Your task to perform on an android device: see creations saved in the google photos Image 0: 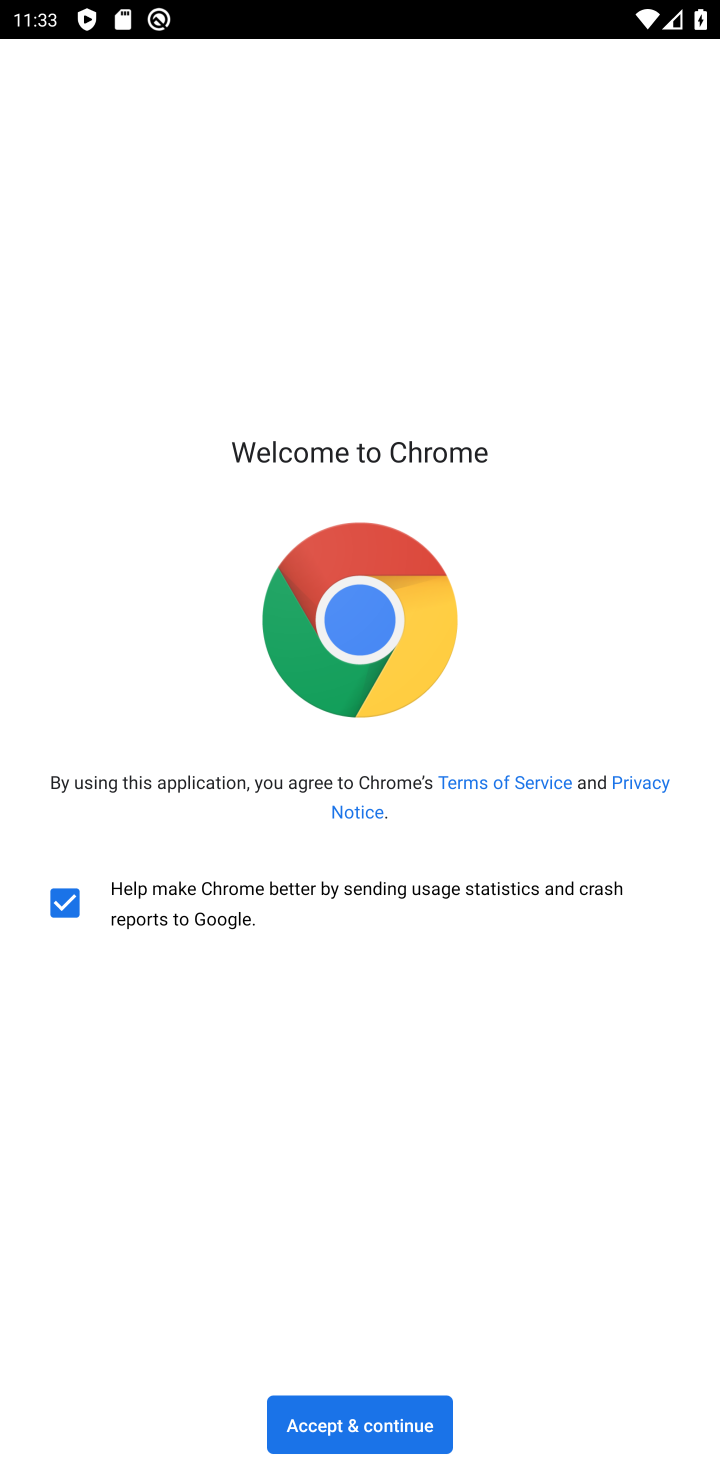
Step 0: click (363, 1424)
Your task to perform on an android device: see creations saved in the google photos Image 1: 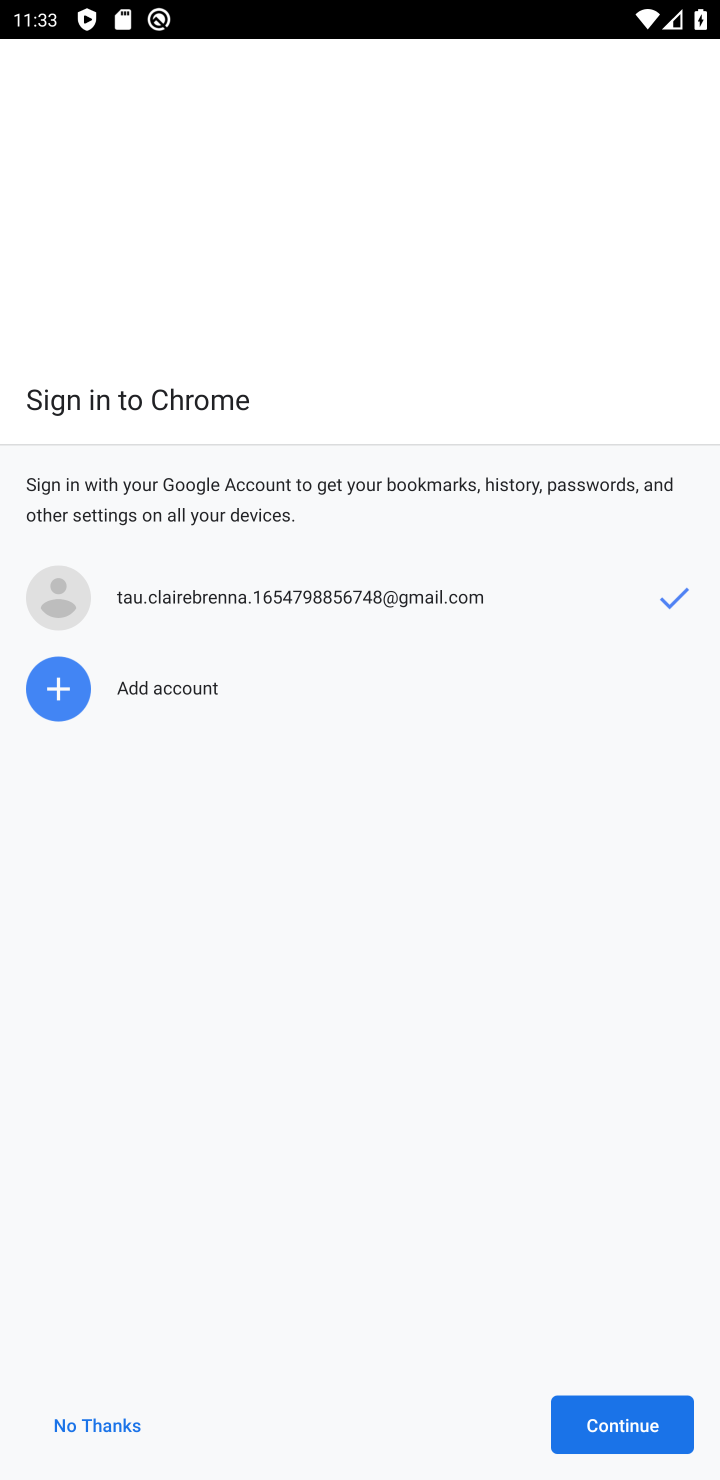
Step 1: click (593, 1410)
Your task to perform on an android device: see creations saved in the google photos Image 2: 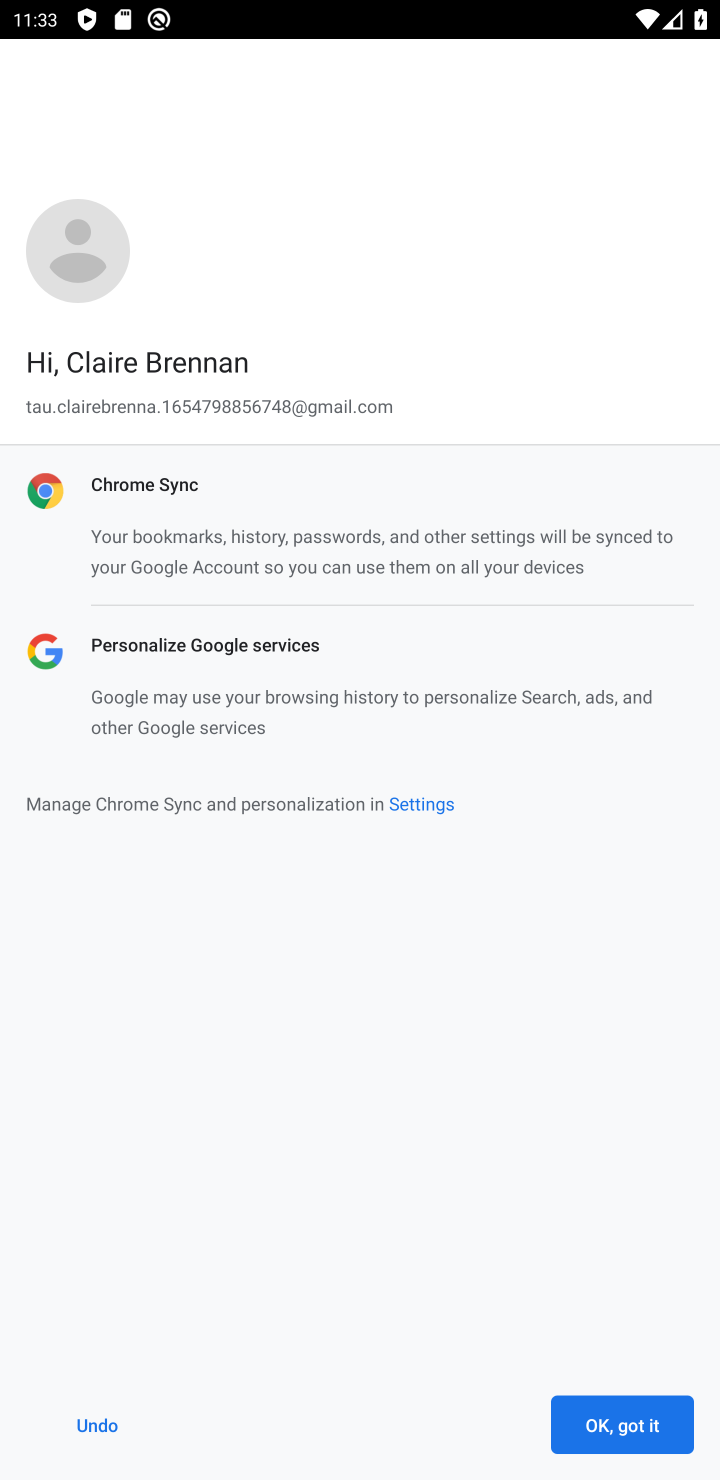
Step 2: click (617, 1411)
Your task to perform on an android device: see creations saved in the google photos Image 3: 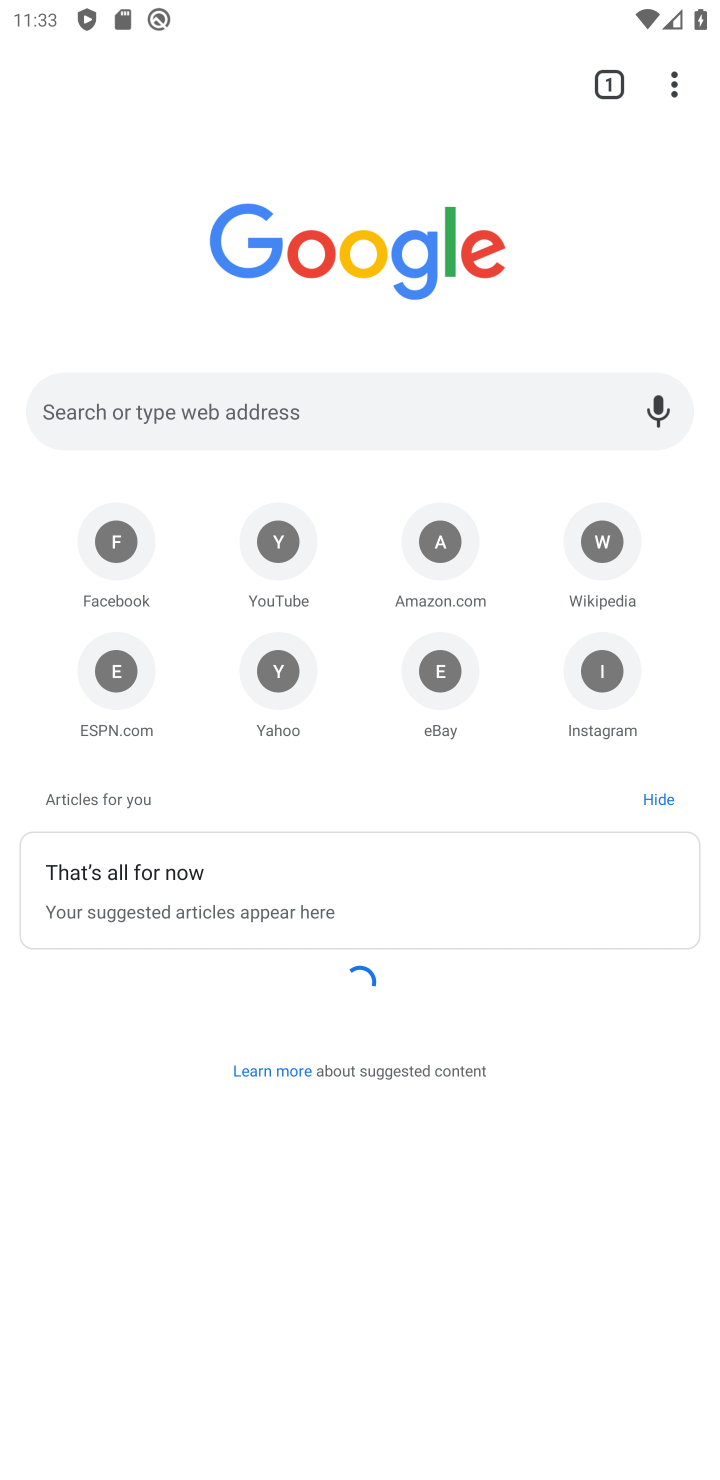
Step 3: task complete